Your task to perform on an android device: turn on the 12-hour format for clock Image 0: 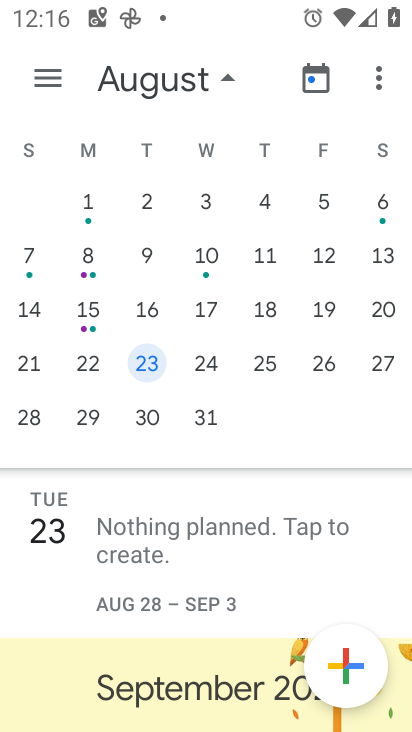
Step 0: press home button
Your task to perform on an android device: turn on the 12-hour format for clock Image 1: 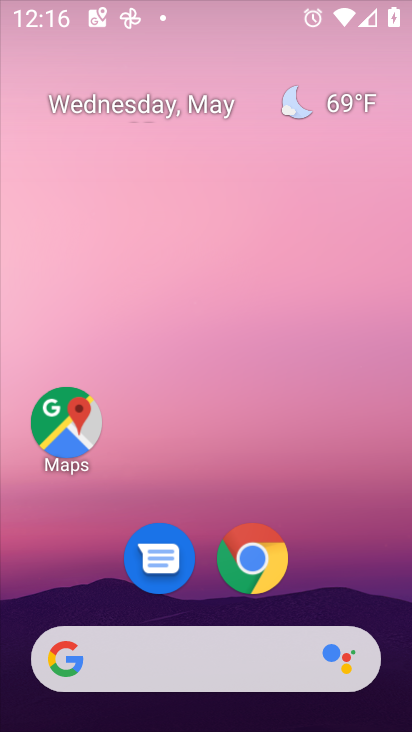
Step 1: drag from (392, 662) to (300, 74)
Your task to perform on an android device: turn on the 12-hour format for clock Image 2: 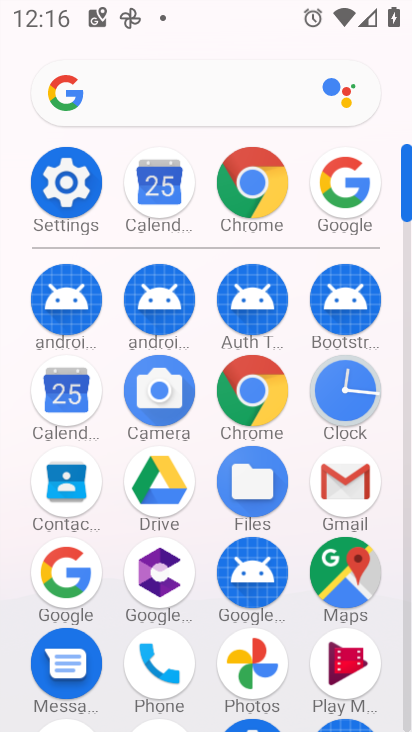
Step 2: click (340, 407)
Your task to perform on an android device: turn on the 12-hour format for clock Image 3: 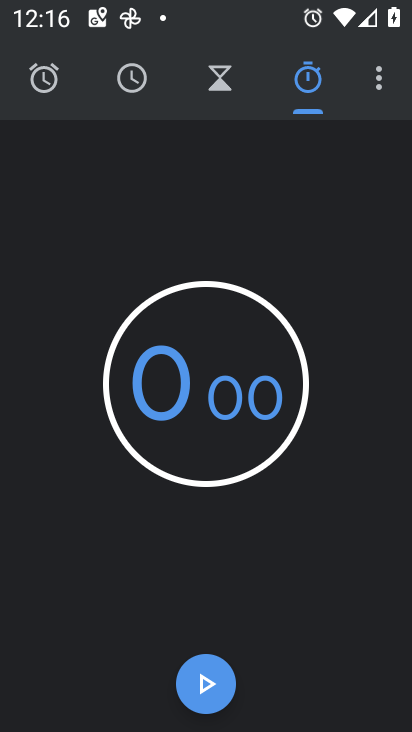
Step 3: click (379, 72)
Your task to perform on an android device: turn on the 12-hour format for clock Image 4: 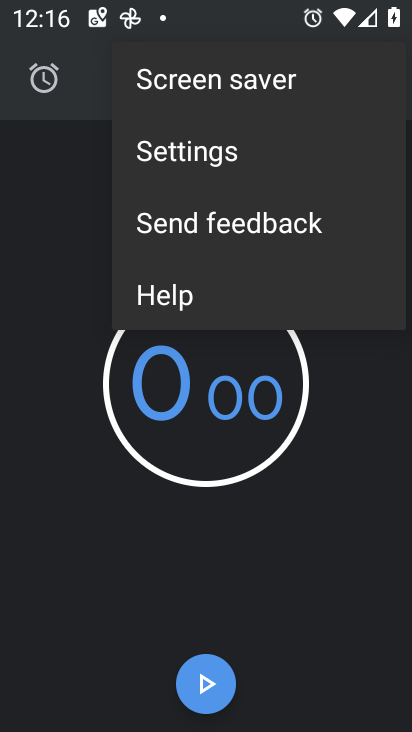
Step 4: click (208, 162)
Your task to perform on an android device: turn on the 12-hour format for clock Image 5: 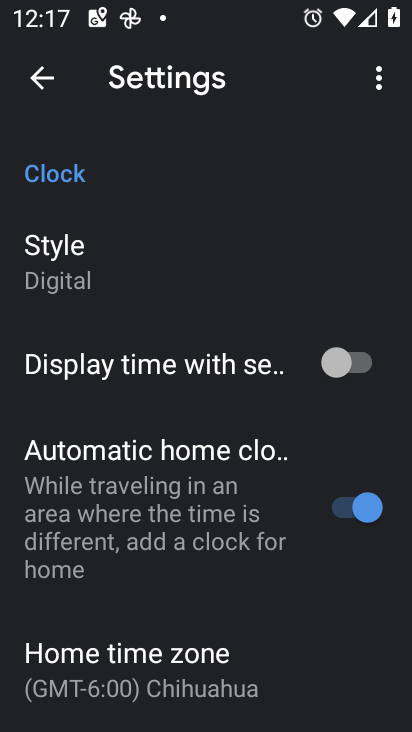
Step 5: drag from (173, 687) to (179, 133)
Your task to perform on an android device: turn on the 12-hour format for clock Image 6: 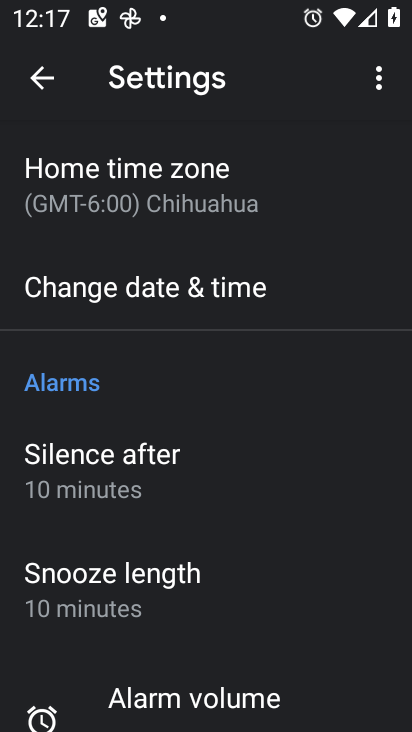
Step 6: click (216, 310)
Your task to perform on an android device: turn on the 12-hour format for clock Image 7: 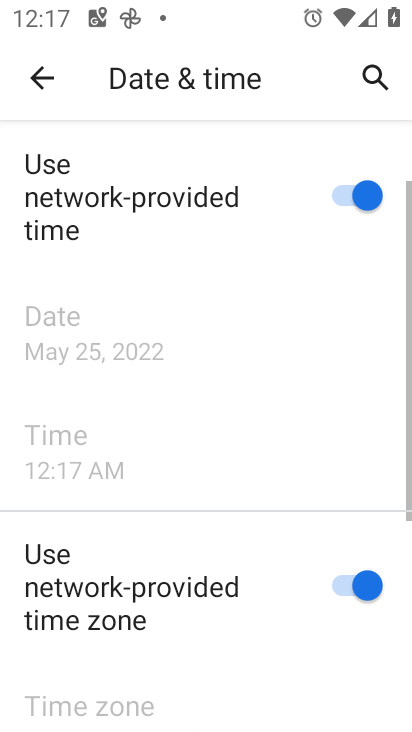
Step 7: task complete